Your task to perform on an android device: star an email in the gmail app Image 0: 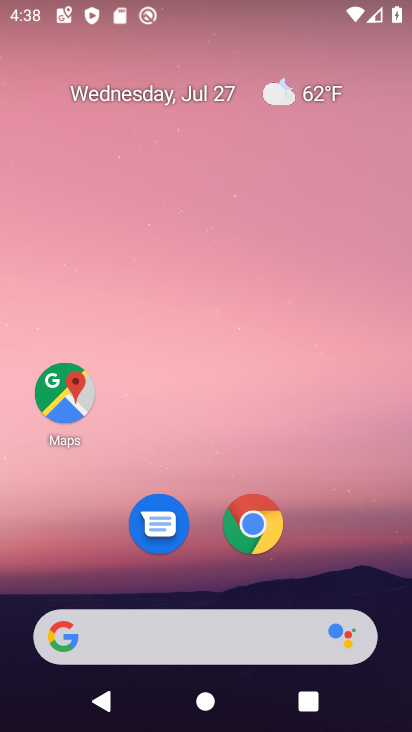
Step 0: drag from (336, 544) to (376, 14)
Your task to perform on an android device: star an email in the gmail app Image 1: 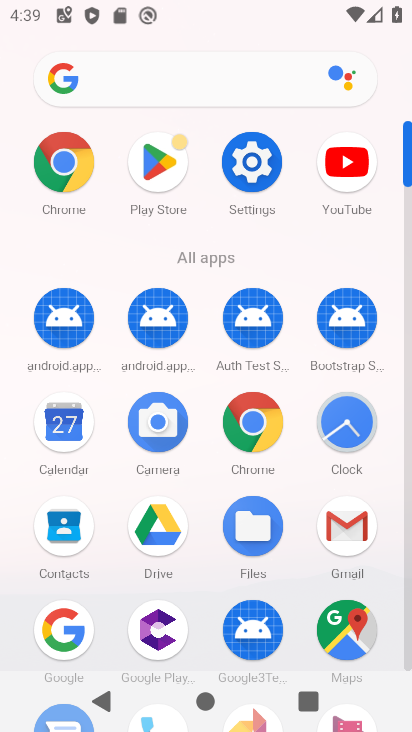
Step 1: click (355, 529)
Your task to perform on an android device: star an email in the gmail app Image 2: 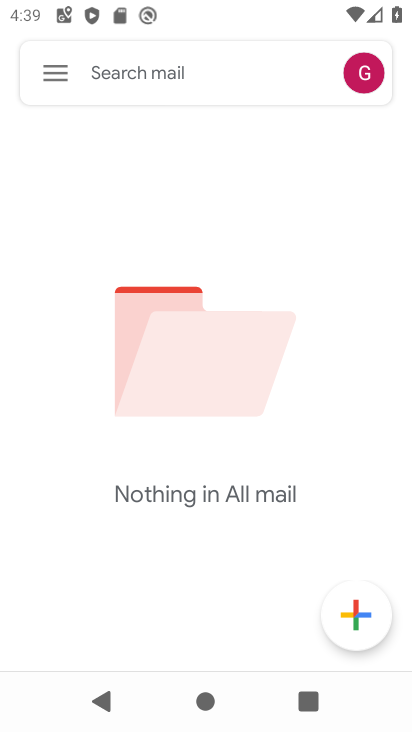
Step 2: click (55, 72)
Your task to perform on an android device: star an email in the gmail app Image 3: 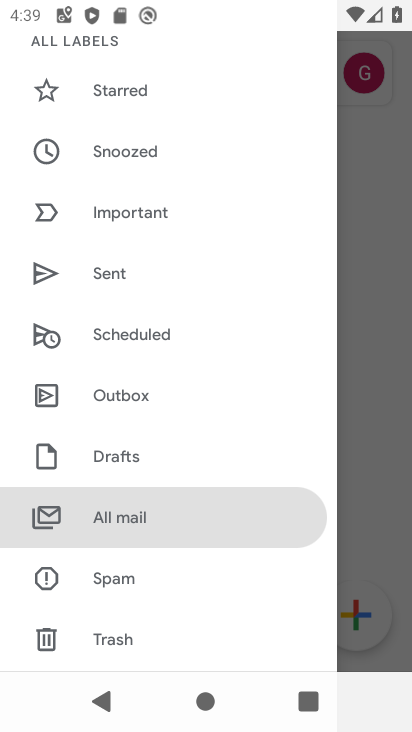
Step 3: click (127, 521)
Your task to perform on an android device: star an email in the gmail app Image 4: 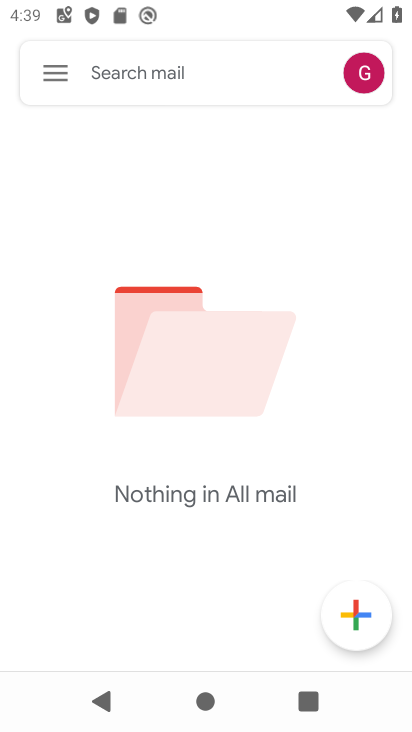
Step 4: task complete